Your task to perform on an android device: Open Google Image 0: 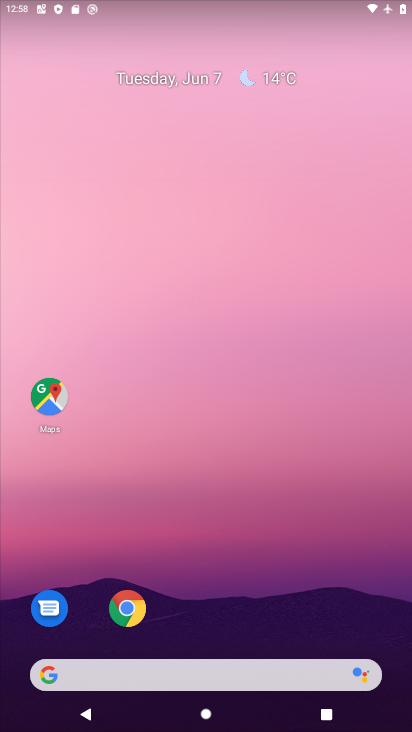
Step 0: drag from (189, 600) to (170, 152)
Your task to perform on an android device: Open Google Image 1: 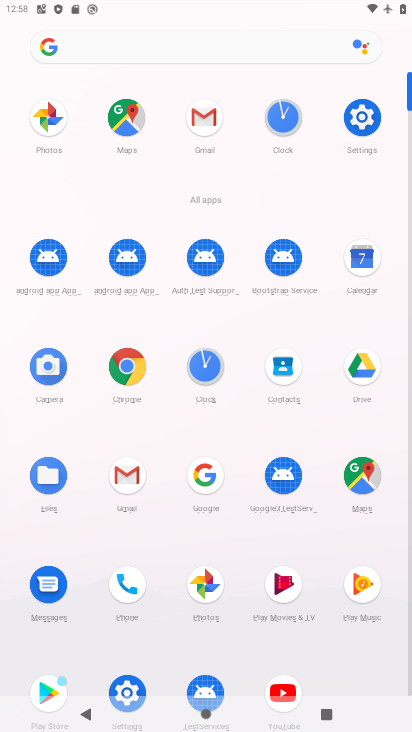
Step 1: click (202, 478)
Your task to perform on an android device: Open Google Image 2: 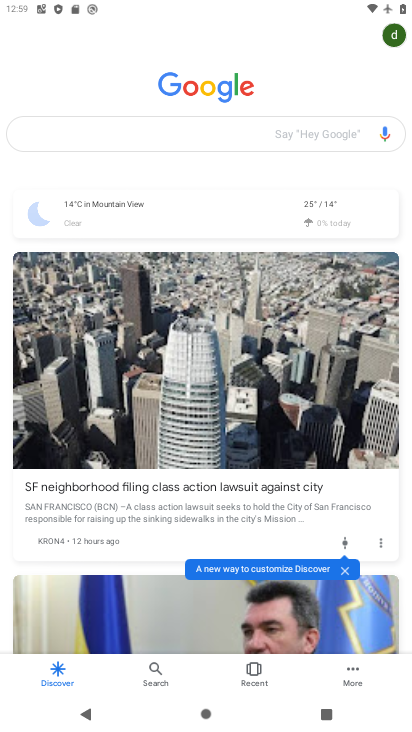
Step 2: task complete